Your task to perform on an android device: turn on the 24-hour format for clock Image 0: 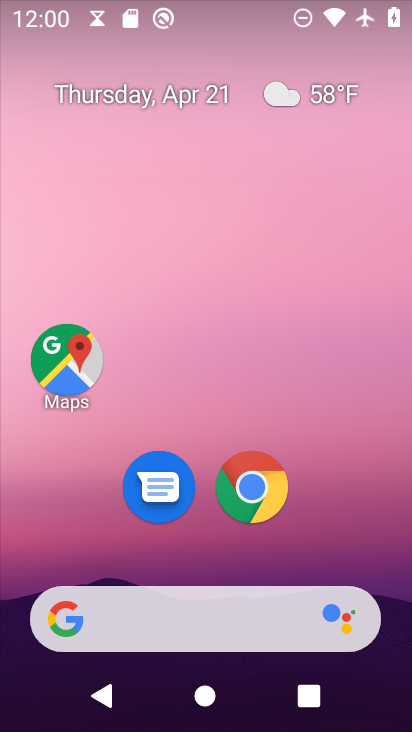
Step 0: drag from (324, 525) to (236, 7)
Your task to perform on an android device: turn on the 24-hour format for clock Image 1: 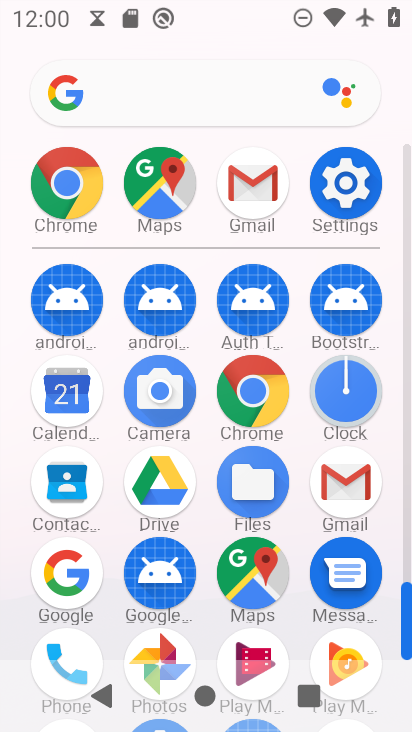
Step 1: drag from (23, 540) to (19, 243)
Your task to perform on an android device: turn on the 24-hour format for clock Image 2: 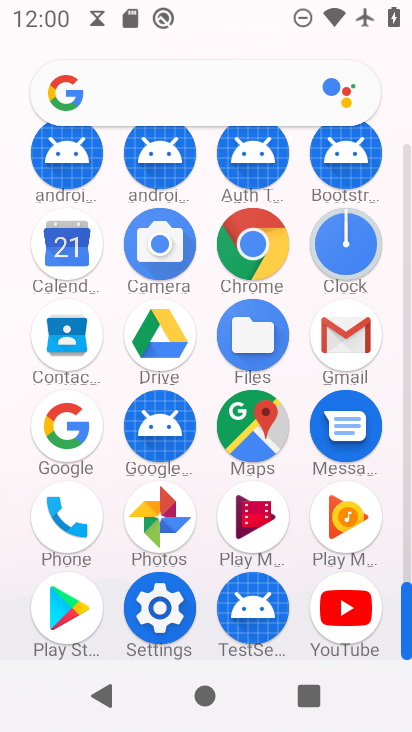
Step 2: drag from (14, 222) to (5, 585)
Your task to perform on an android device: turn on the 24-hour format for clock Image 3: 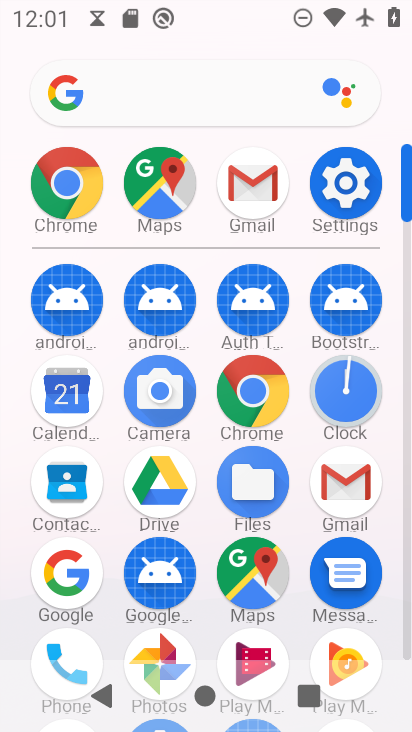
Step 3: drag from (9, 530) to (16, 280)
Your task to perform on an android device: turn on the 24-hour format for clock Image 4: 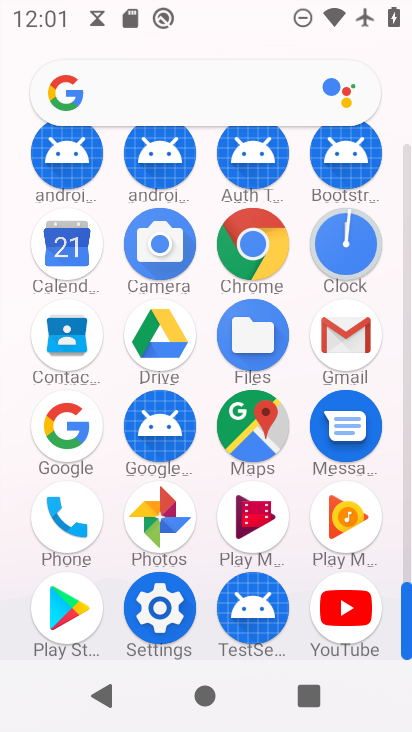
Step 4: drag from (20, 173) to (2, 139)
Your task to perform on an android device: turn on the 24-hour format for clock Image 5: 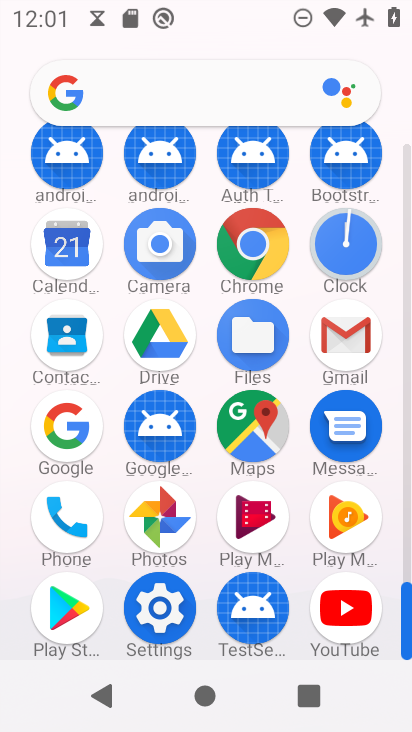
Step 5: drag from (4, 225) to (14, 455)
Your task to perform on an android device: turn on the 24-hour format for clock Image 6: 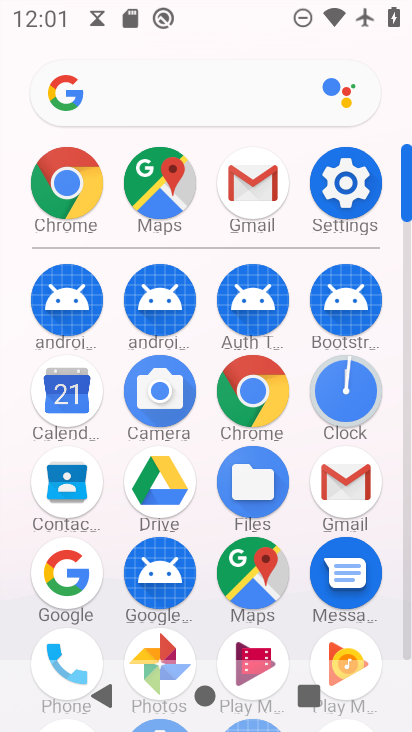
Step 6: drag from (19, 500) to (21, 264)
Your task to perform on an android device: turn on the 24-hour format for clock Image 7: 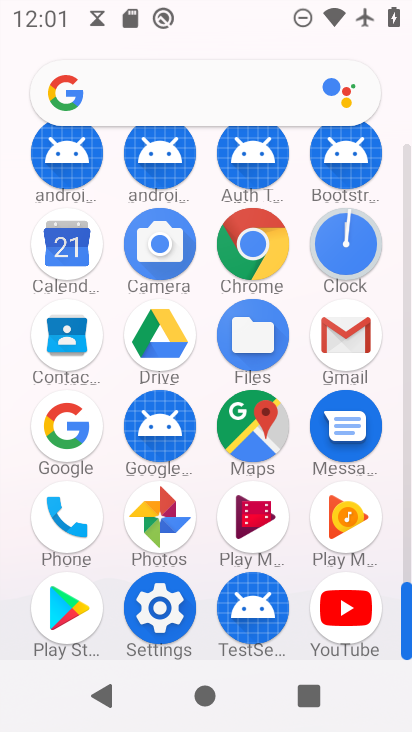
Step 7: click (346, 243)
Your task to perform on an android device: turn on the 24-hour format for clock Image 8: 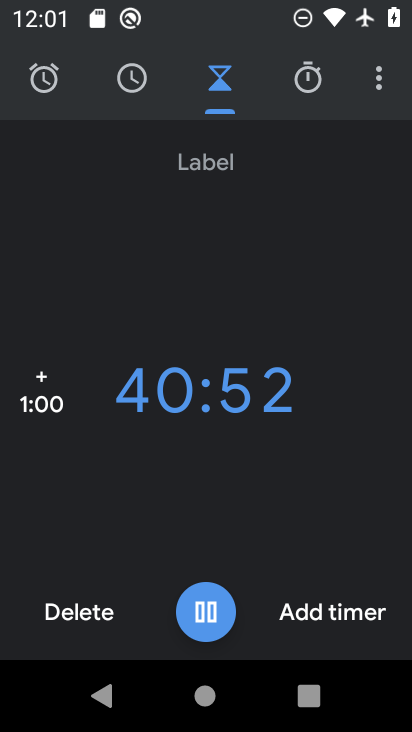
Step 8: click (377, 78)
Your task to perform on an android device: turn on the 24-hour format for clock Image 9: 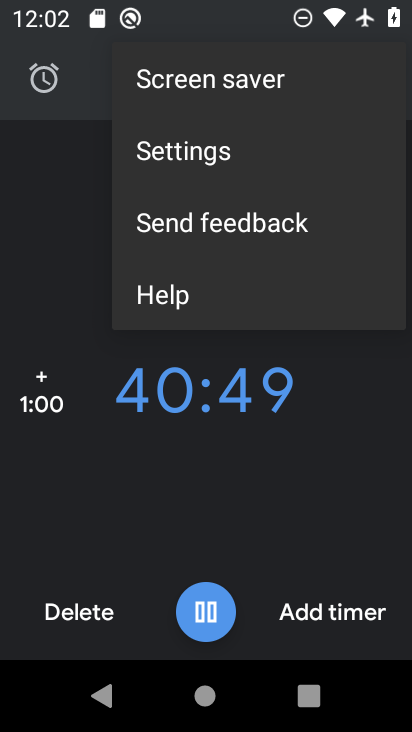
Step 9: click (233, 137)
Your task to perform on an android device: turn on the 24-hour format for clock Image 10: 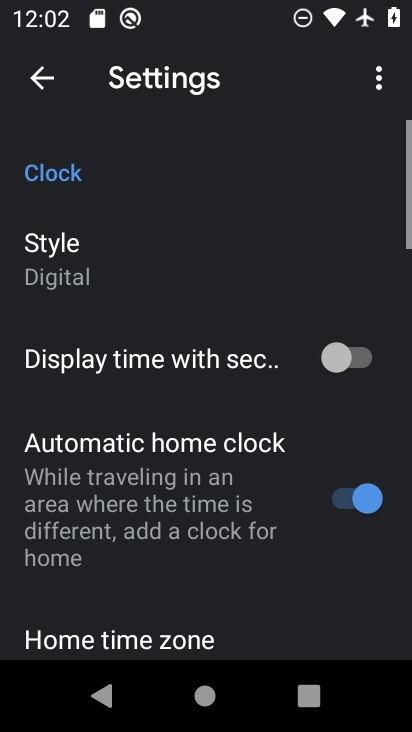
Step 10: drag from (194, 509) to (211, 207)
Your task to perform on an android device: turn on the 24-hour format for clock Image 11: 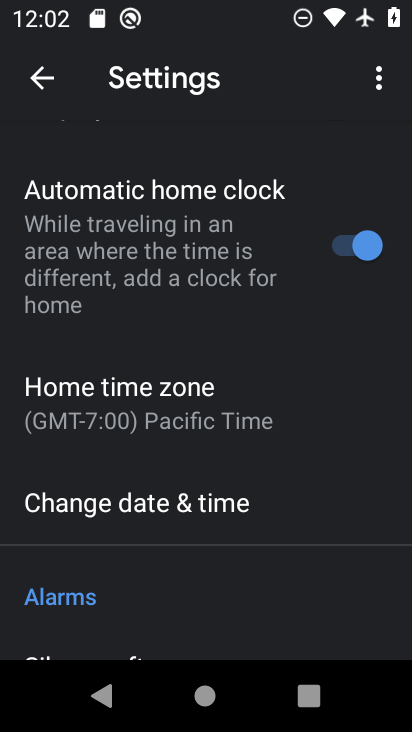
Step 11: click (208, 495)
Your task to perform on an android device: turn on the 24-hour format for clock Image 12: 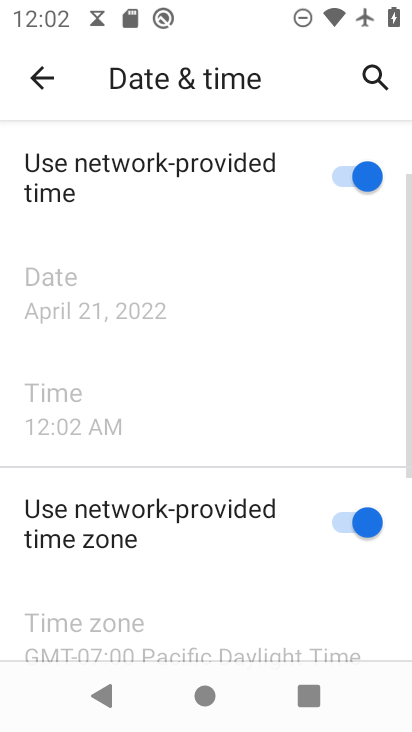
Step 12: drag from (183, 519) to (195, 196)
Your task to perform on an android device: turn on the 24-hour format for clock Image 13: 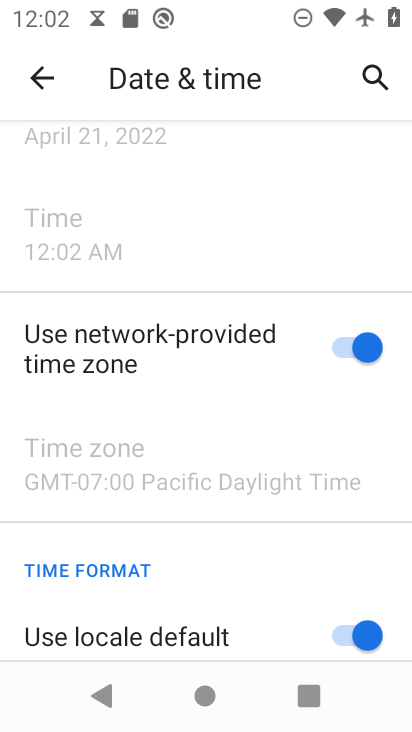
Step 13: drag from (193, 620) to (185, 185)
Your task to perform on an android device: turn on the 24-hour format for clock Image 14: 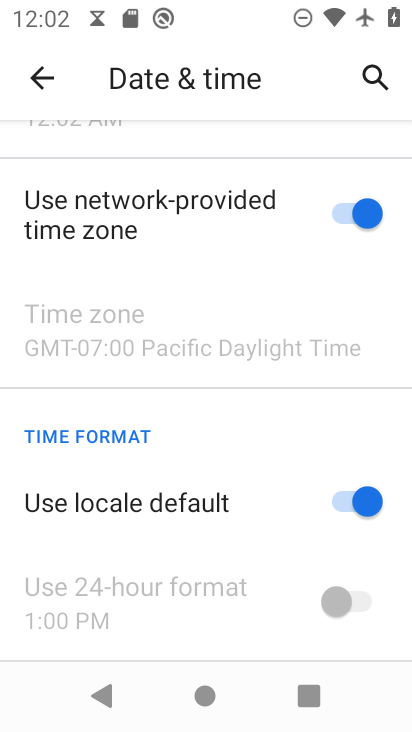
Step 14: click (347, 496)
Your task to perform on an android device: turn on the 24-hour format for clock Image 15: 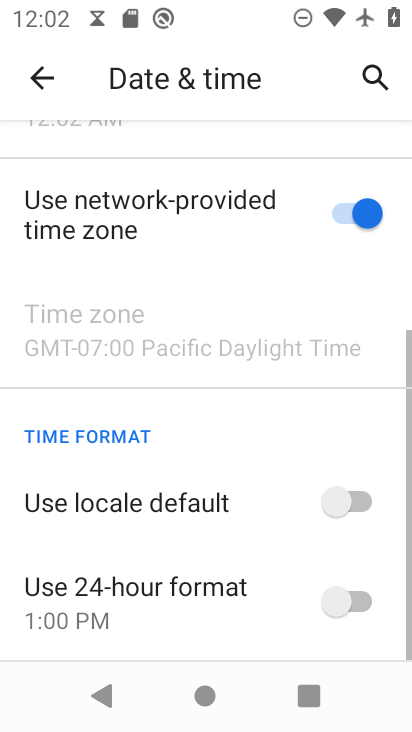
Step 15: click (357, 604)
Your task to perform on an android device: turn on the 24-hour format for clock Image 16: 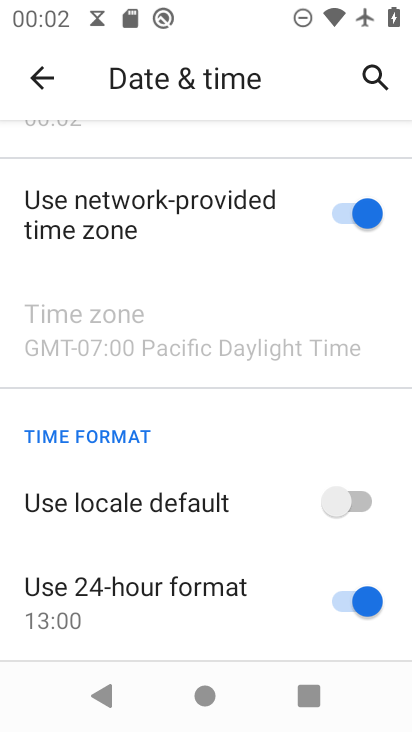
Step 16: task complete